Your task to perform on an android device: turn pop-ups on in chrome Image 0: 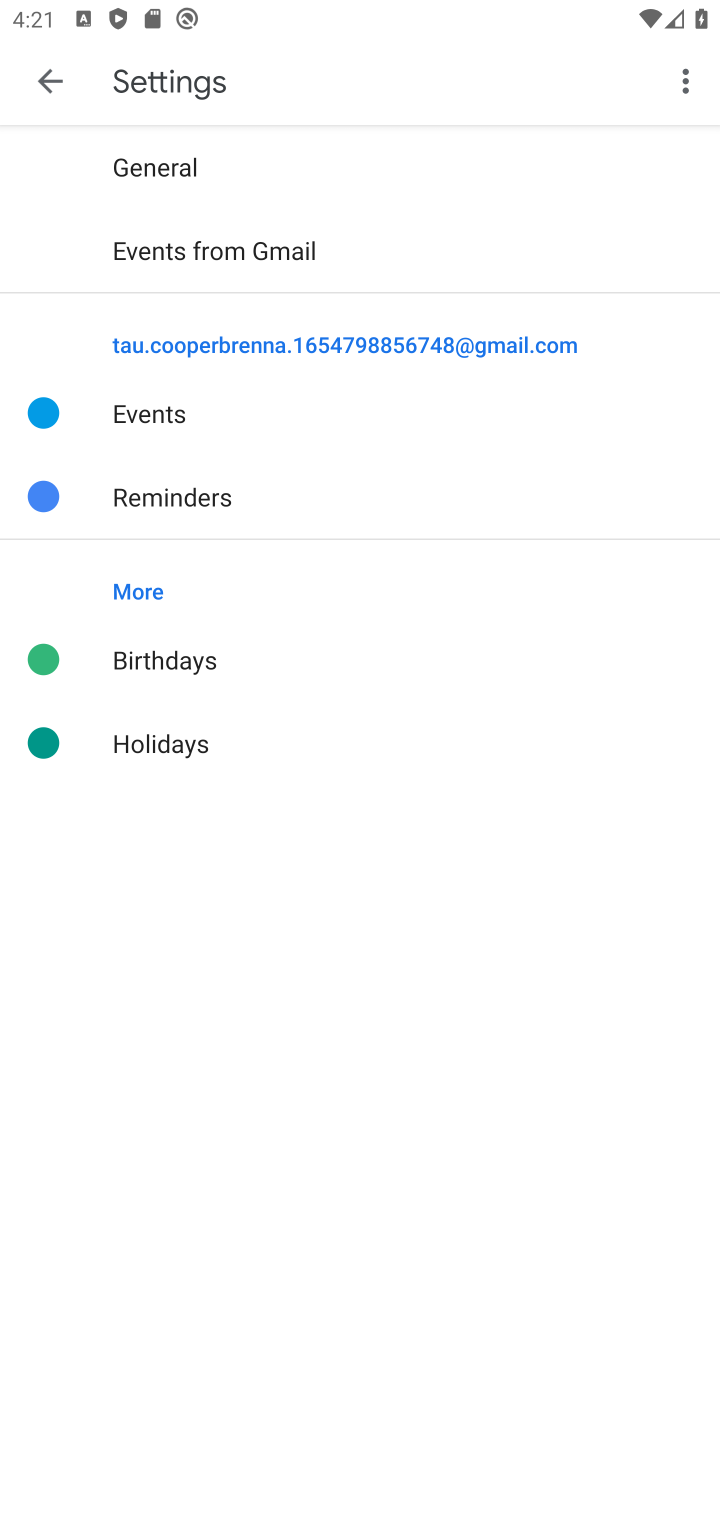
Step 0: press home button
Your task to perform on an android device: turn pop-ups on in chrome Image 1: 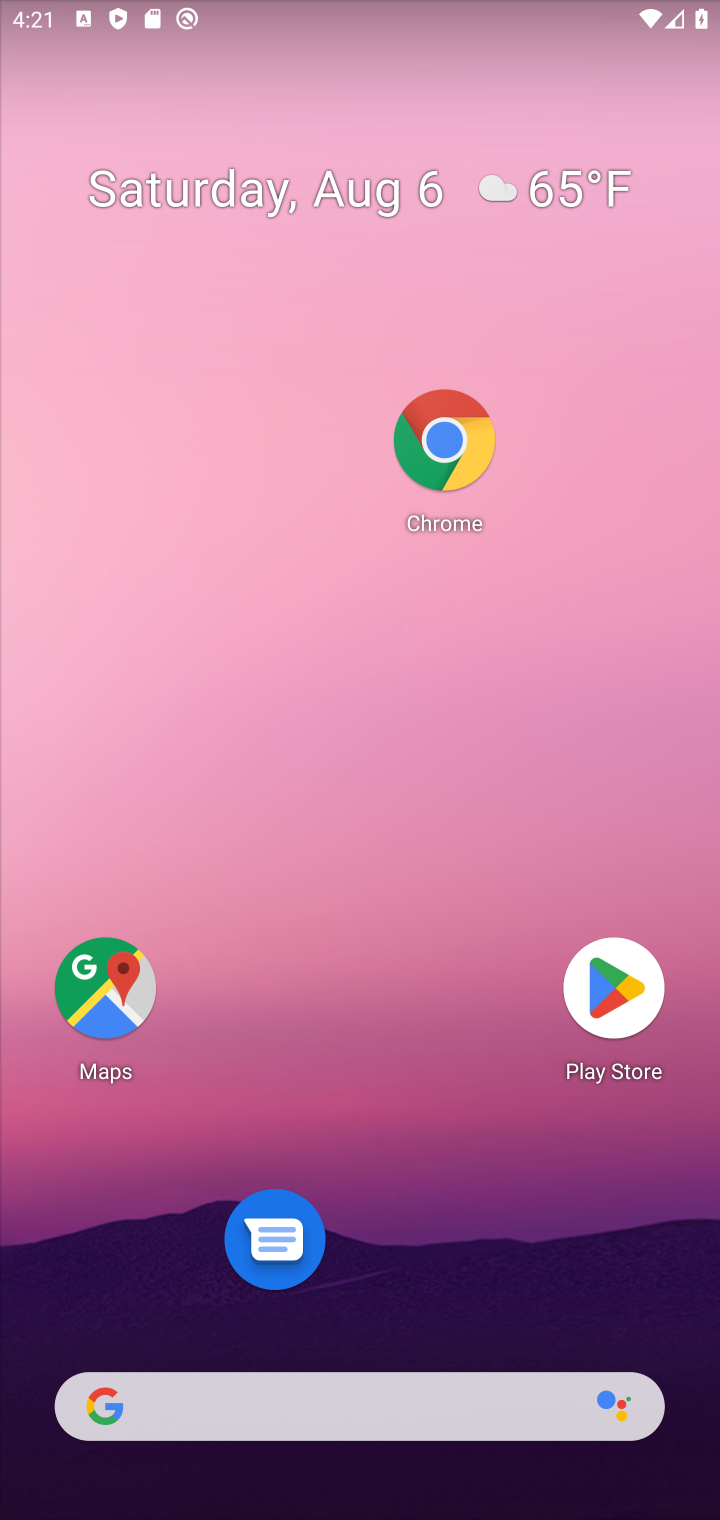
Step 1: drag from (296, 1413) to (410, 452)
Your task to perform on an android device: turn pop-ups on in chrome Image 2: 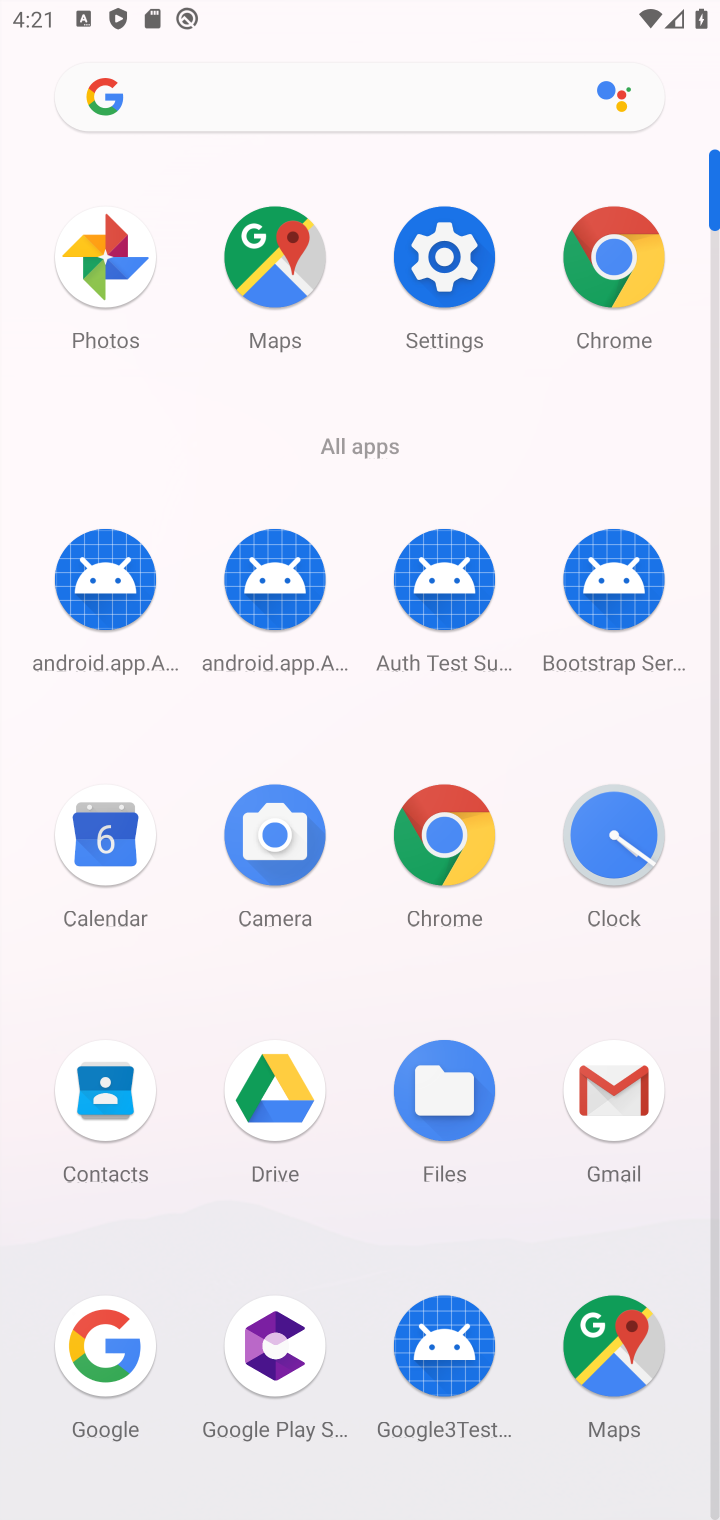
Step 2: click (417, 832)
Your task to perform on an android device: turn pop-ups on in chrome Image 3: 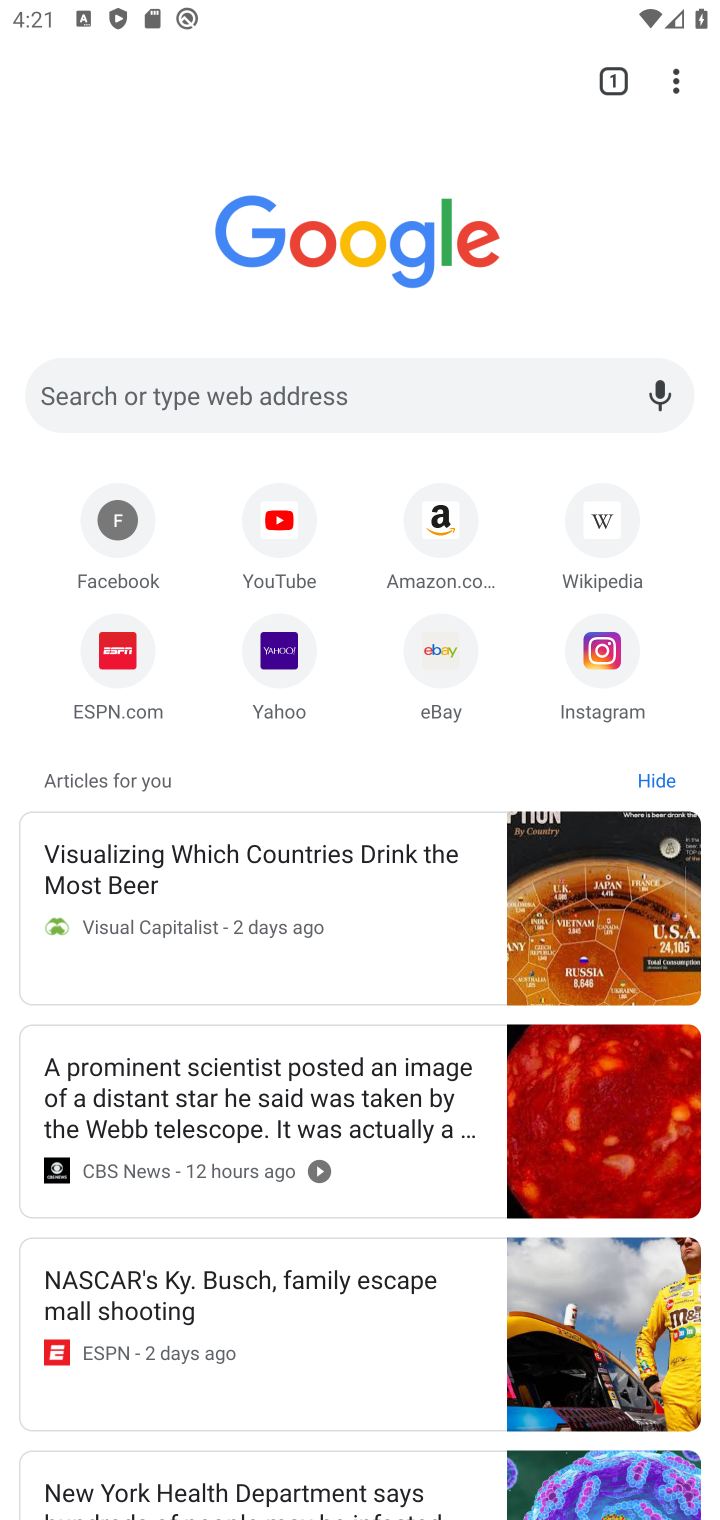
Step 3: drag from (672, 70) to (417, 678)
Your task to perform on an android device: turn pop-ups on in chrome Image 4: 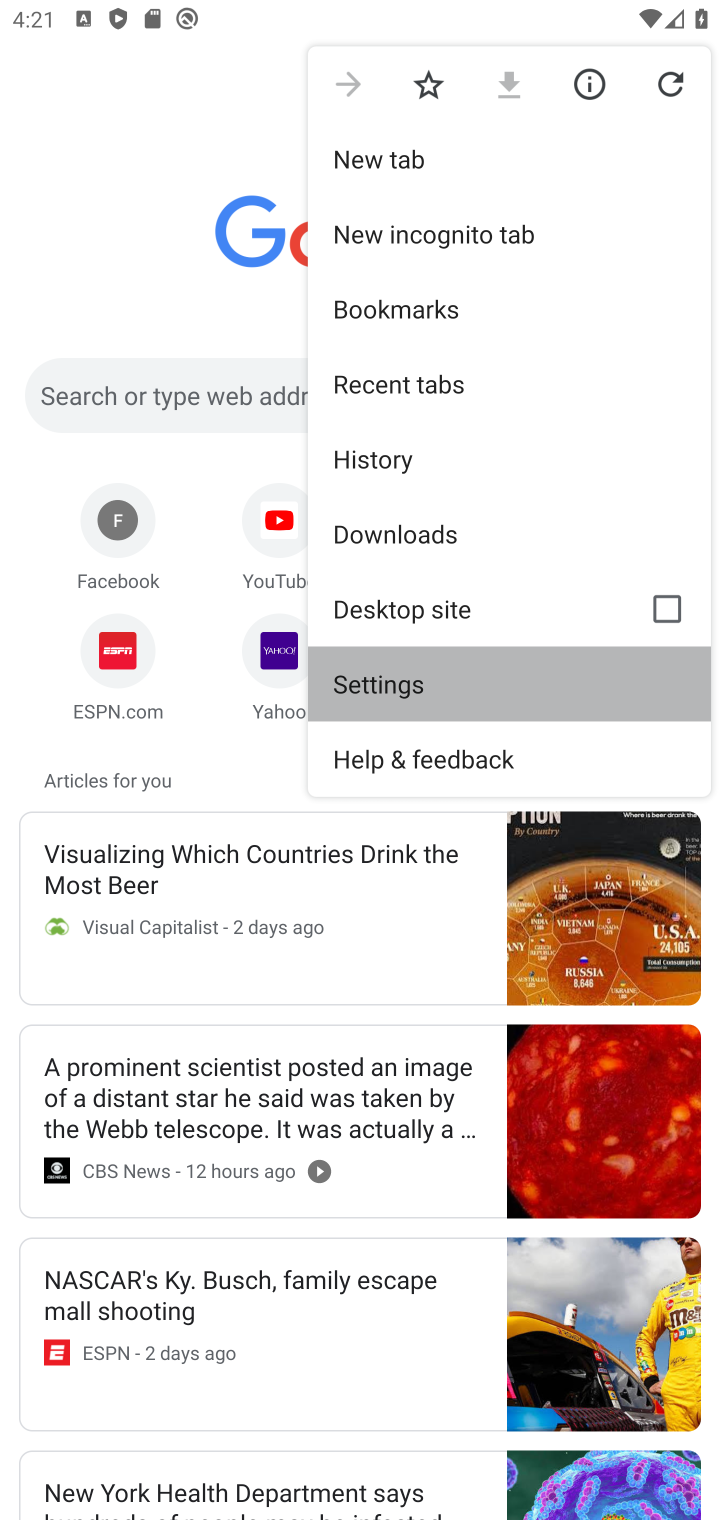
Step 4: click (417, 678)
Your task to perform on an android device: turn pop-ups on in chrome Image 5: 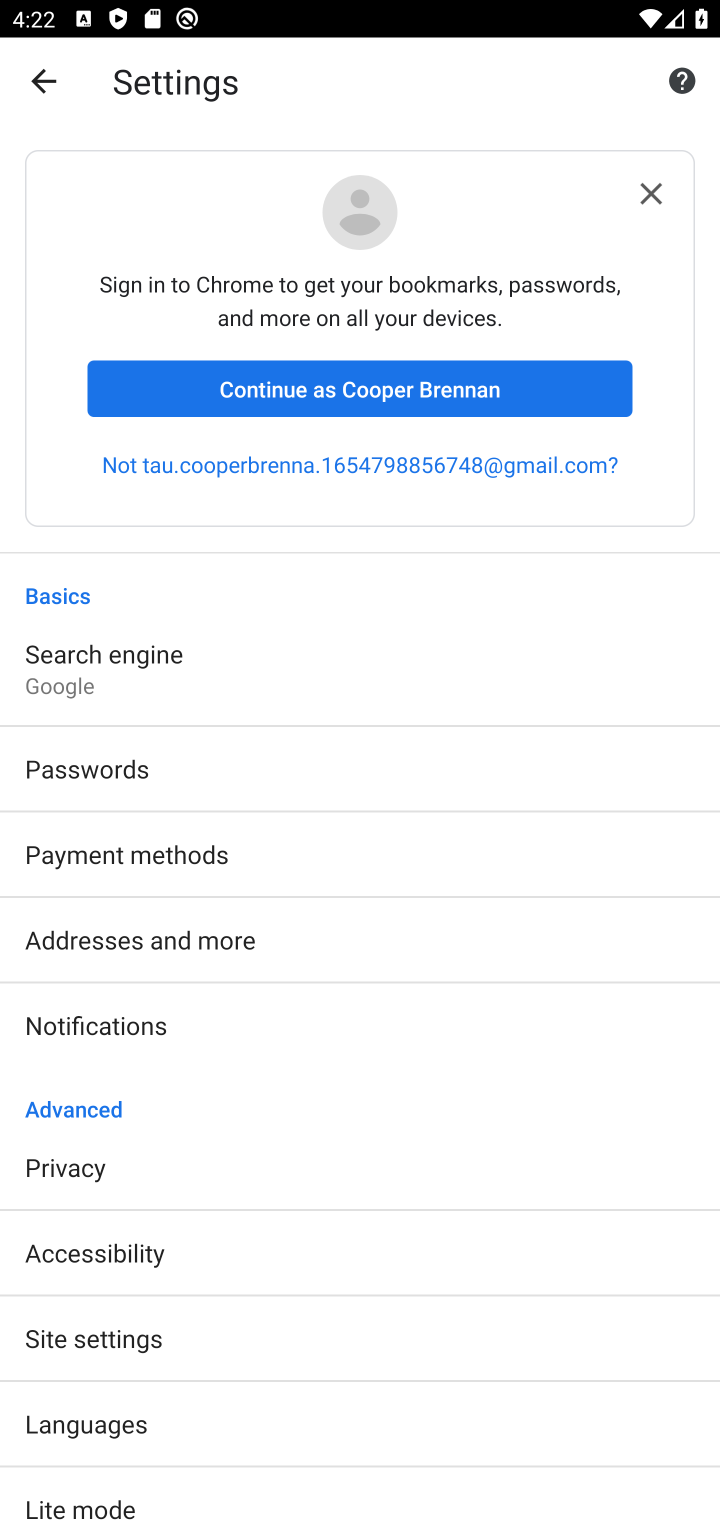
Step 5: click (336, 1349)
Your task to perform on an android device: turn pop-ups on in chrome Image 6: 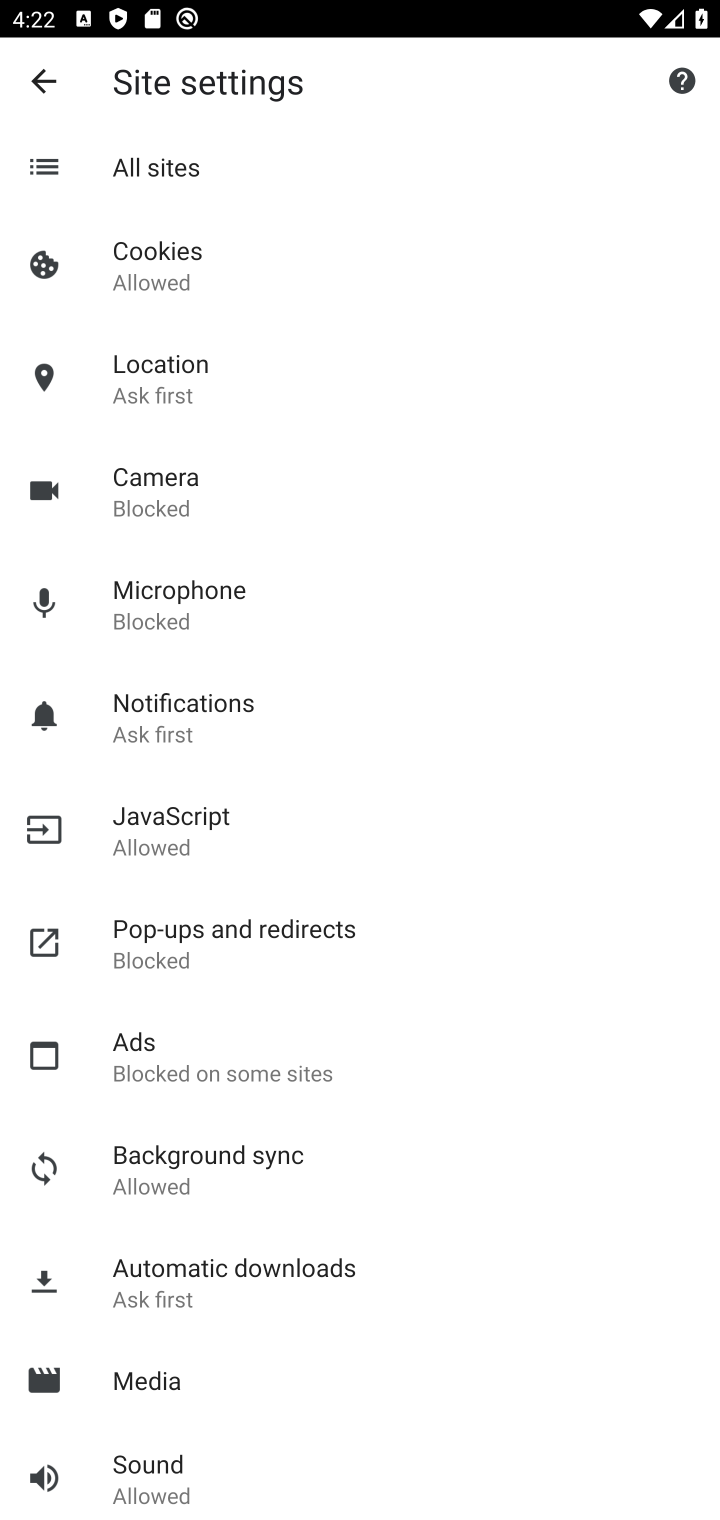
Step 6: click (263, 941)
Your task to perform on an android device: turn pop-ups on in chrome Image 7: 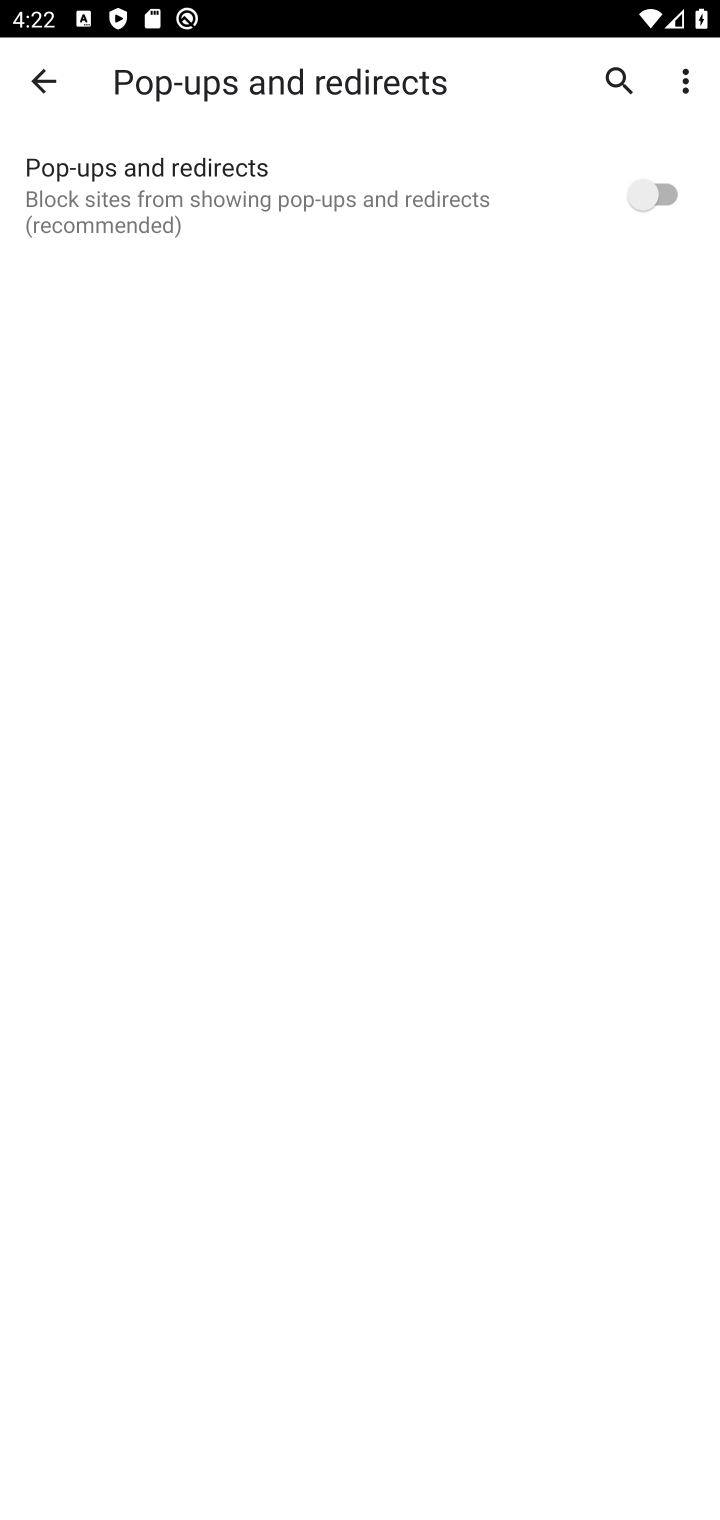
Step 7: click (660, 189)
Your task to perform on an android device: turn pop-ups on in chrome Image 8: 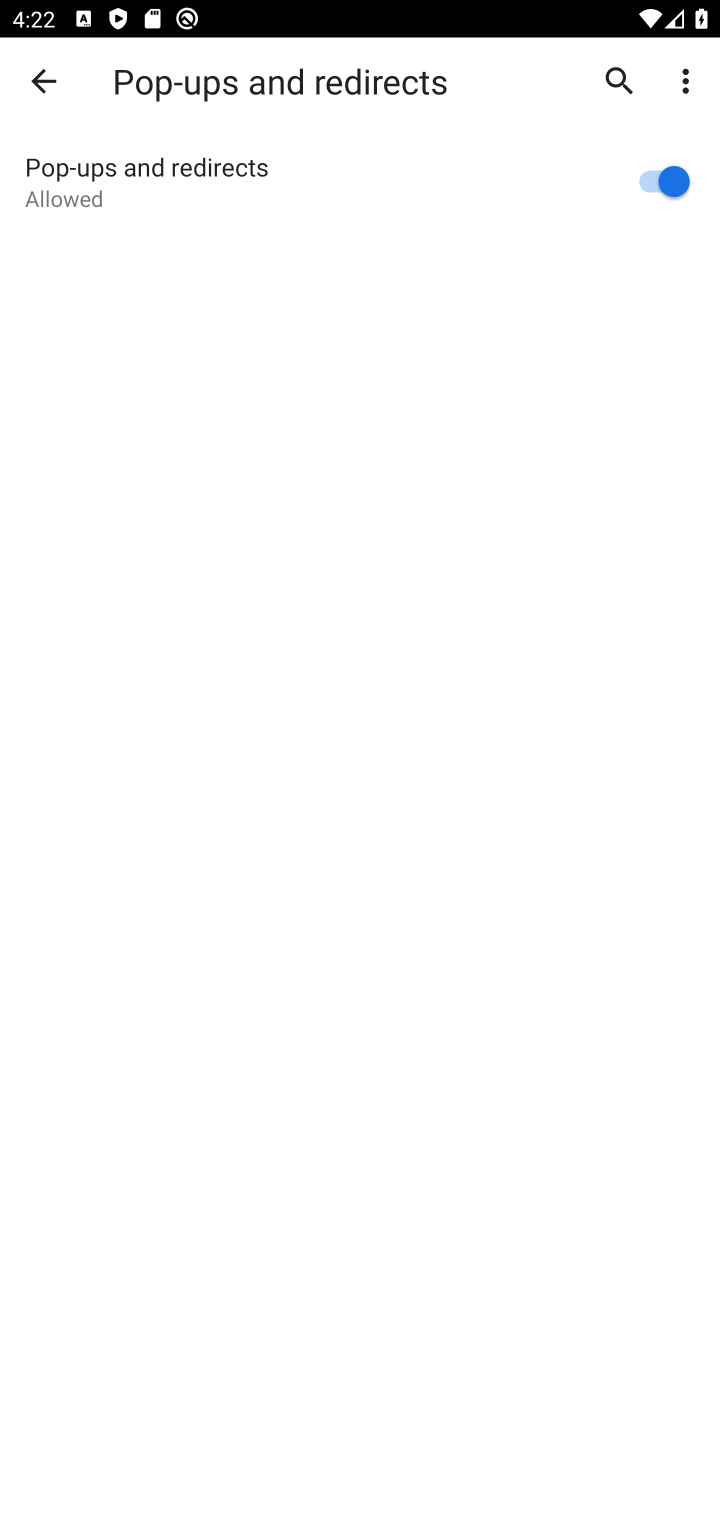
Step 8: task complete